Your task to perform on an android device: uninstall "Facebook Messenger" Image 0: 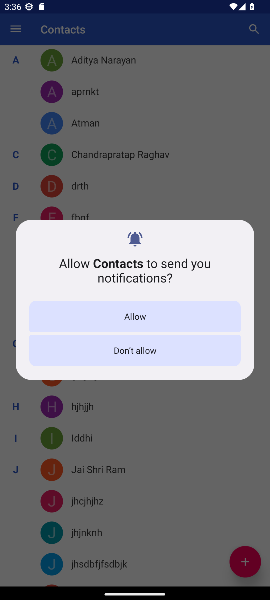
Step 0: click (142, 355)
Your task to perform on an android device: uninstall "Facebook Messenger" Image 1: 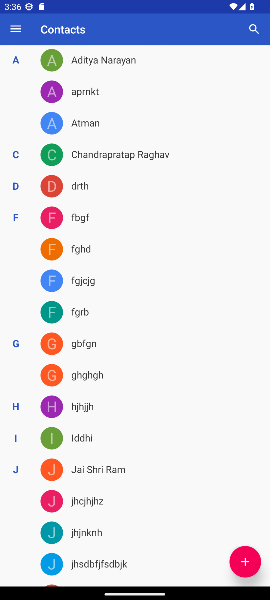
Step 1: press home button
Your task to perform on an android device: uninstall "Facebook Messenger" Image 2: 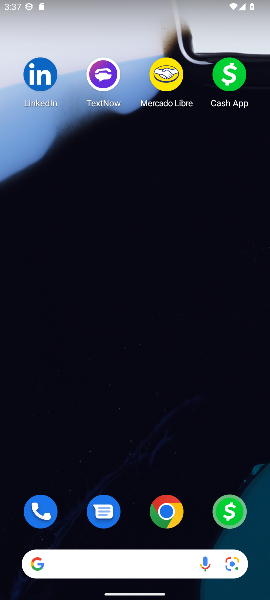
Step 2: type "Facebook Messenger"
Your task to perform on an android device: uninstall "Facebook Messenger" Image 3: 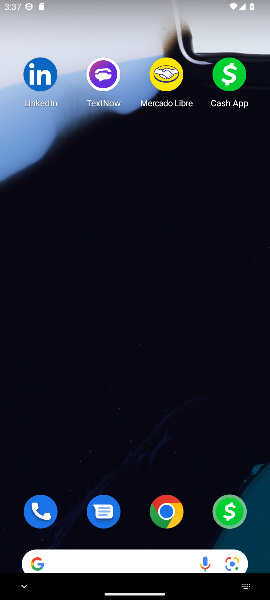
Step 3: drag from (134, 552) to (87, 252)
Your task to perform on an android device: uninstall "Facebook Messenger" Image 4: 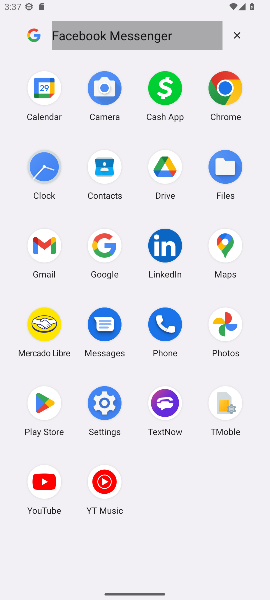
Step 4: click (54, 405)
Your task to perform on an android device: uninstall "Facebook Messenger" Image 5: 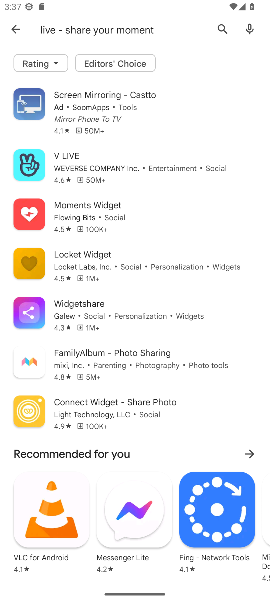
Step 5: click (174, 33)
Your task to perform on an android device: uninstall "Facebook Messenger" Image 6: 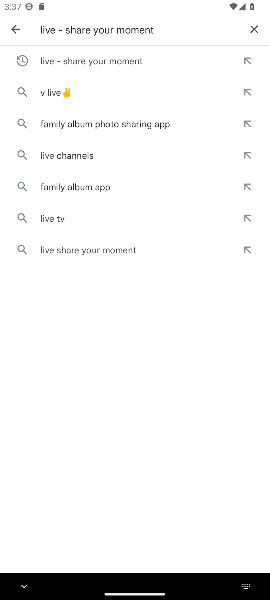
Step 6: click (253, 33)
Your task to perform on an android device: uninstall "Facebook Messenger" Image 7: 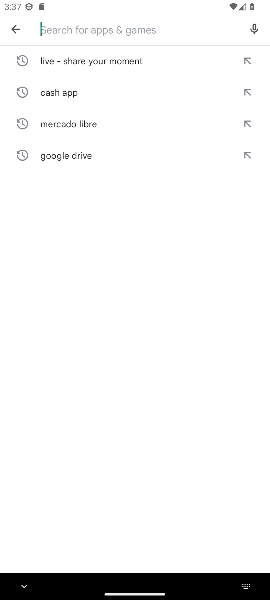
Step 7: type "Facebook Messenger"
Your task to perform on an android device: uninstall "Facebook Messenger" Image 8: 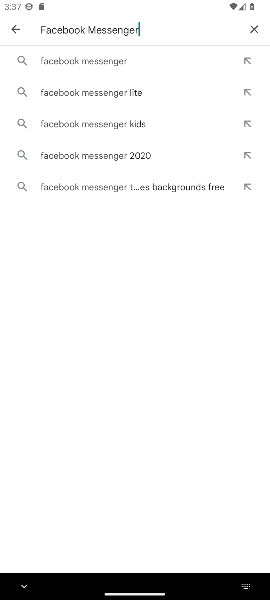
Step 8: click (86, 62)
Your task to perform on an android device: uninstall "Facebook Messenger" Image 9: 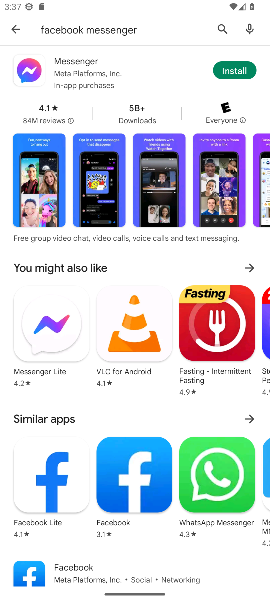
Step 9: task complete